Your task to perform on an android device: Go to wifi settings Image 0: 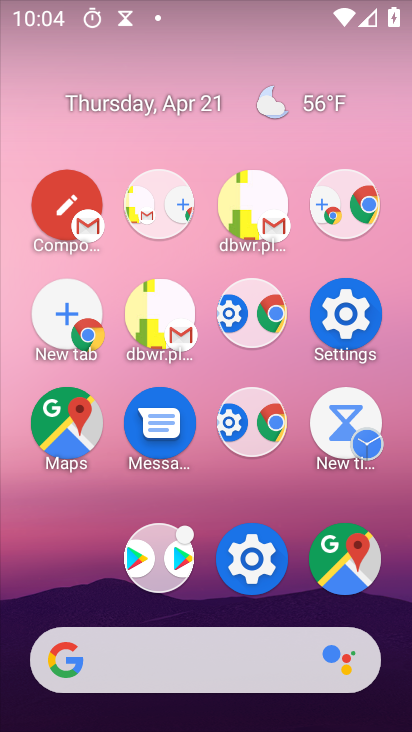
Step 0: drag from (259, 597) to (201, 19)
Your task to perform on an android device: Go to wifi settings Image 1: 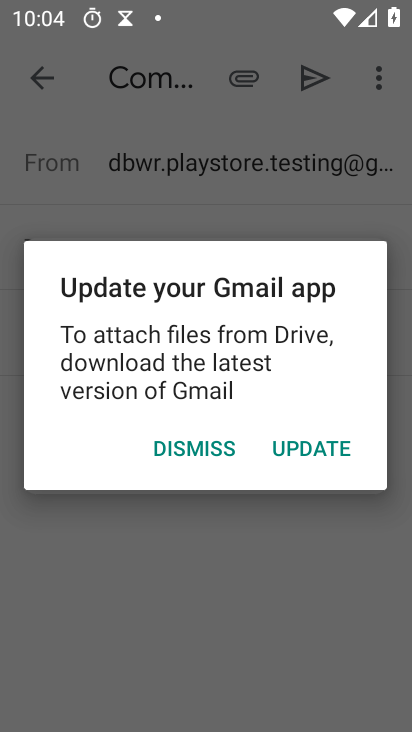
Step 1: click (179, 441)
Your task to perform on an android device: Go to wifi settings Image 2: 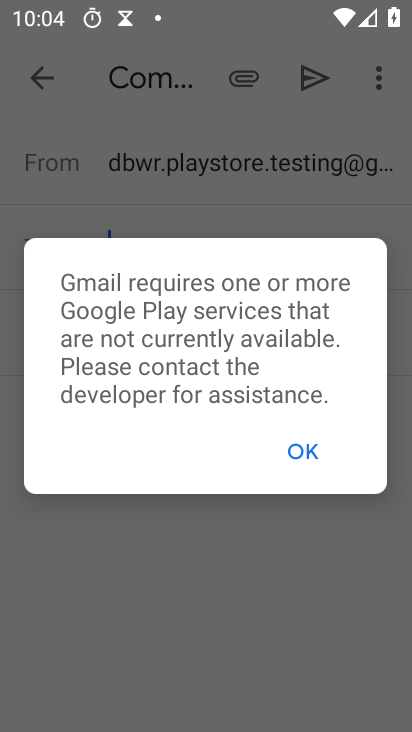
Step 2: click (308, 448)
Your task to perform on an android device: Go to wifi settings Image 3: 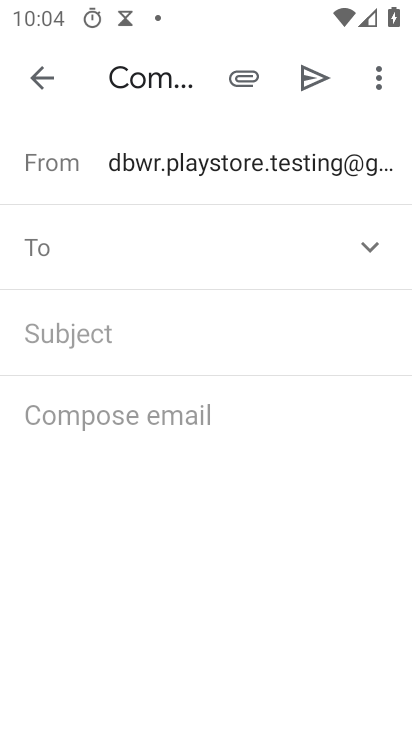
Step 3: click (28, 75)
Your task to perform on an android device: Go to wifi settings Image 4: 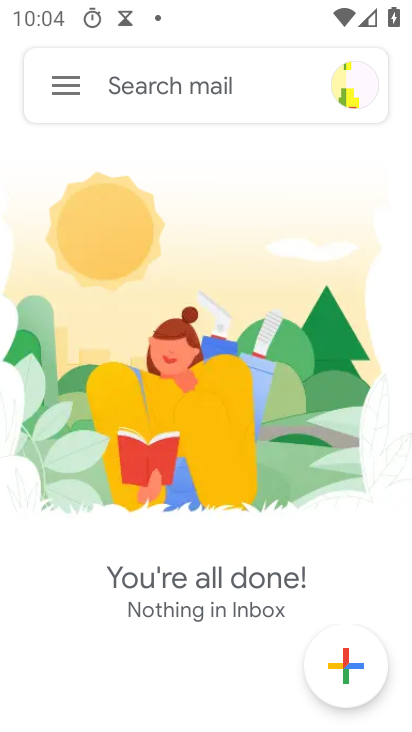
Step 4: press home button
Your task to perform on an android device: Go to wifi settings Image 5: 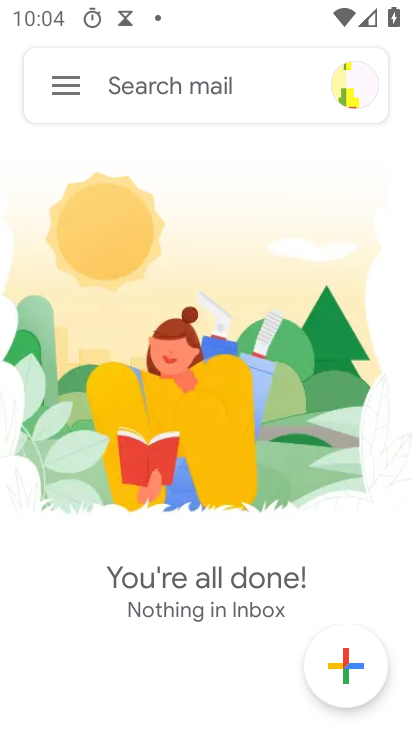
Step 5: press home button
Your task to perform on an android device: Go to wifi settings Image 6: 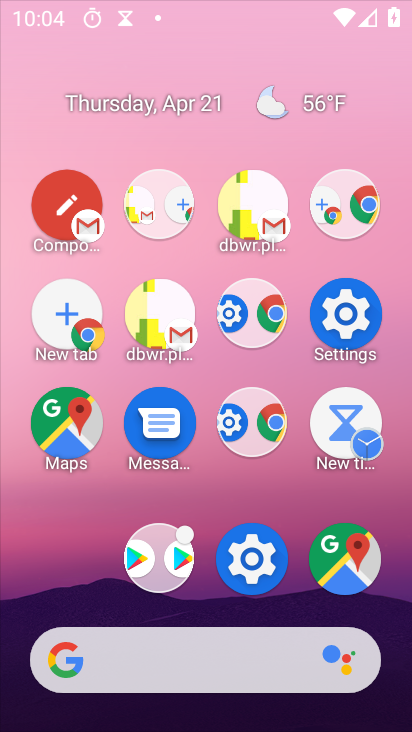
Step 6: press home button
Your task to perform on an android device: Go to wifi settings Image 7: 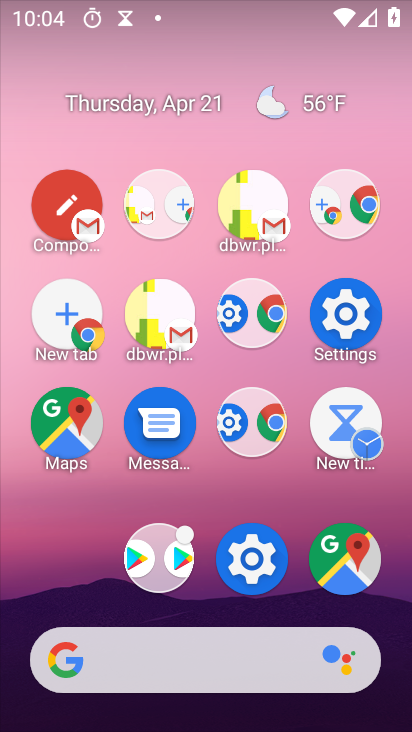
Step 7: drag from (281, 517) to (169, 48)
Your task to perform on an android device: Go to wifi settings Image 8: 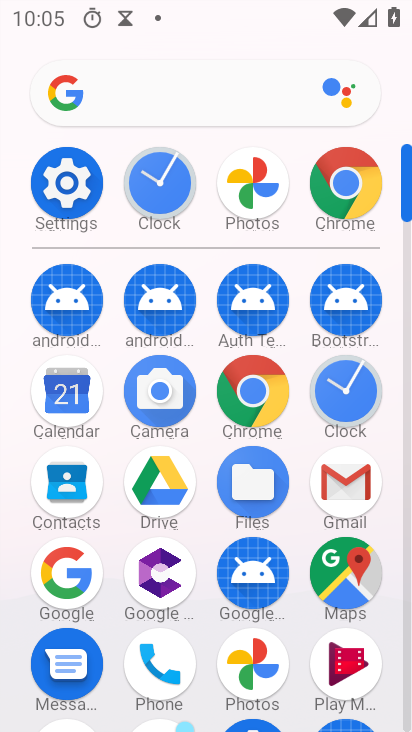
Step 8: click (60, 183)
Your task to perform on an android device: Go to wifi settings Image 9: 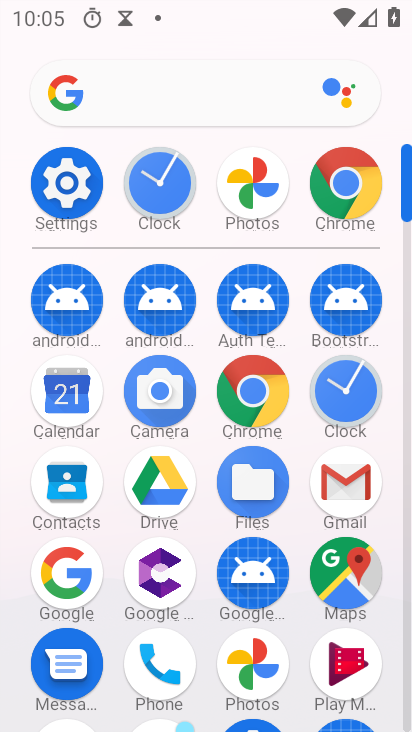
Step 9: click (58, 181)
Your task to perform on an android device: Go to wifi settings Image 10: 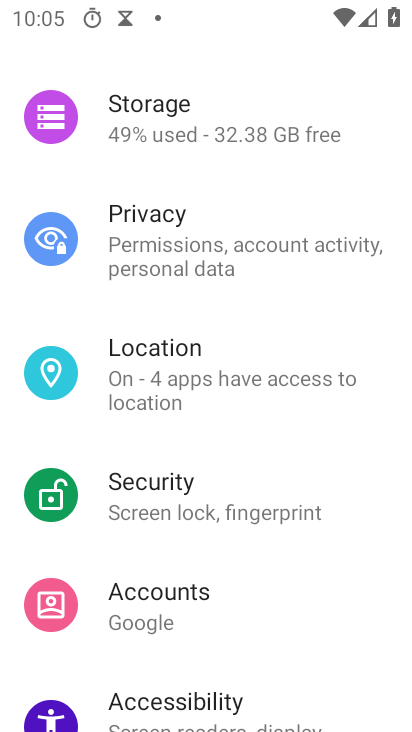
Step 10: drag from (146, 133) to (162, 397)
Your task to perform on an android device: Go to wifi settings Image 11: 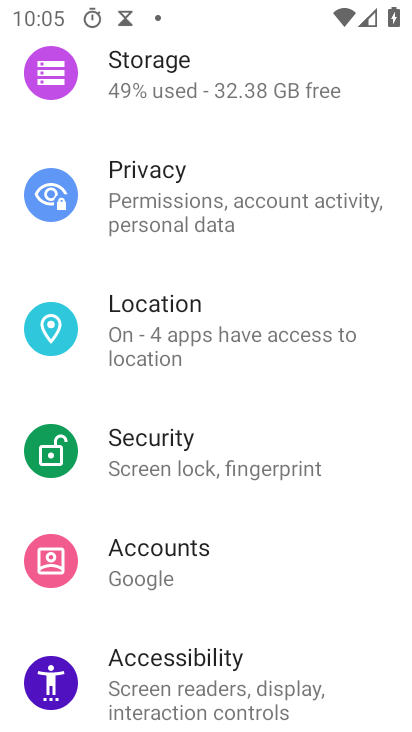
Step 11: drag from (158, 194) to (180, 511)
Your task to perform on an android device: Go to wifi settings Image 12: 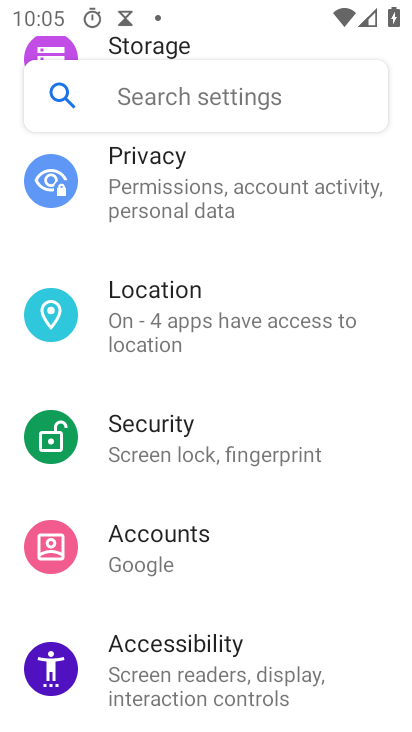
Step 12: drag from (180, 305) to (180, 471)
Your task to perform on an android device: Go to wifi settings Image 13: 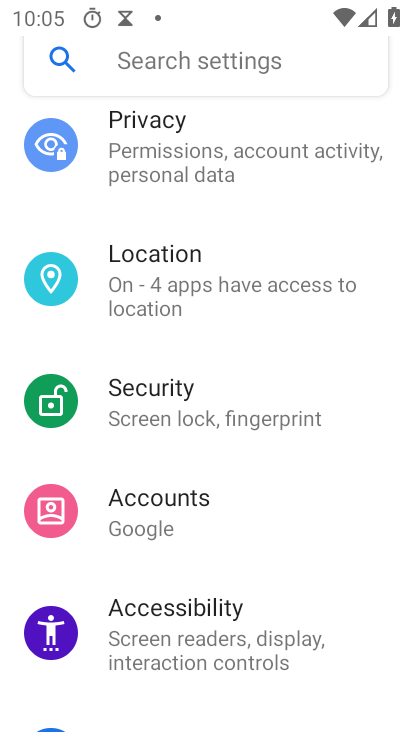
Step 13: drag from (184, 188) to (161, 557)
Your task to perform on an android device: Go to wifi settings Image 14: 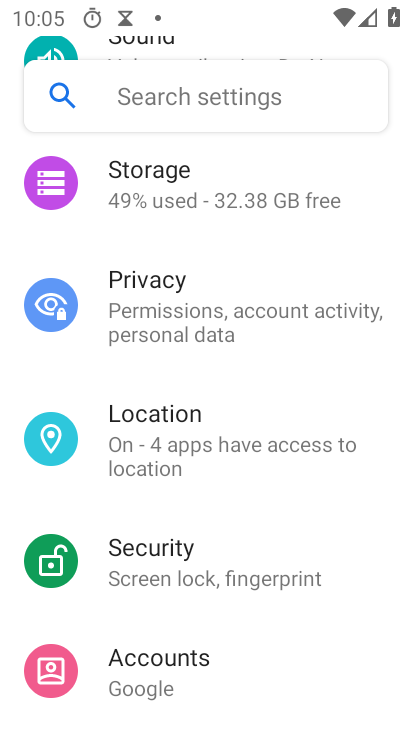
Step 14: drag from (180, 269) to (187, 643)
Your task to perform on an android device: Go to wifi settings Image 15: 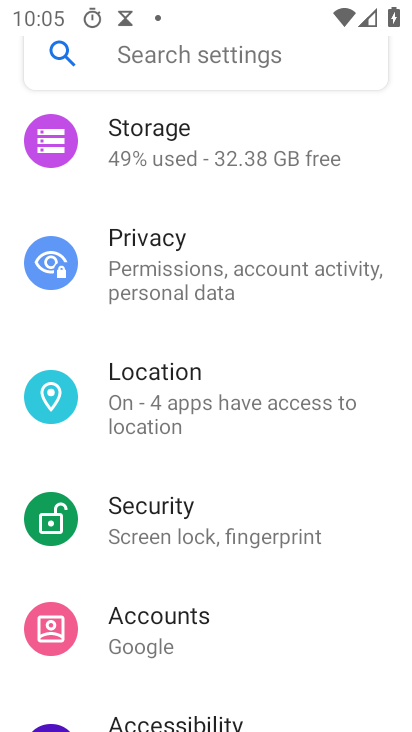
Step 15: drag from (101, 209) to (158, 428)
Your task to perform on an android device: Go to wifi settings Image 16: 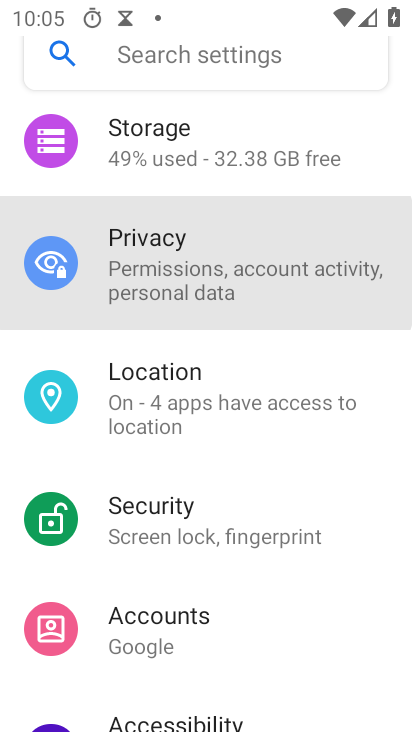
Step 16: drag from (230, 173) to (257, 464)
Your task to perform on an android device: Go to wifi settings Image 17: 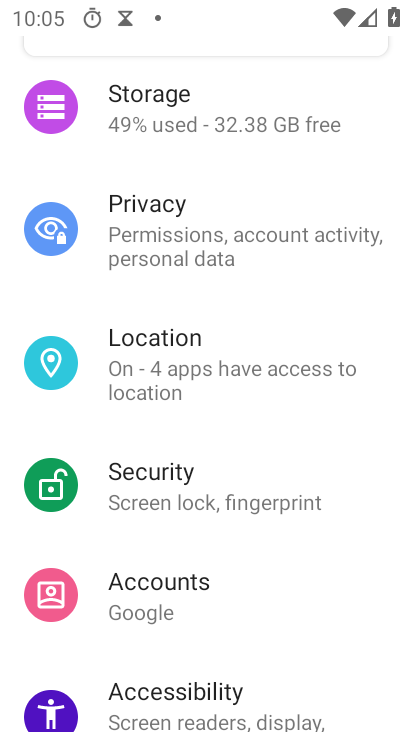
Step 17: drag from (148, 455) to (132, 508)
Your task to perform on an android device: Go to wifi settings Image 18: 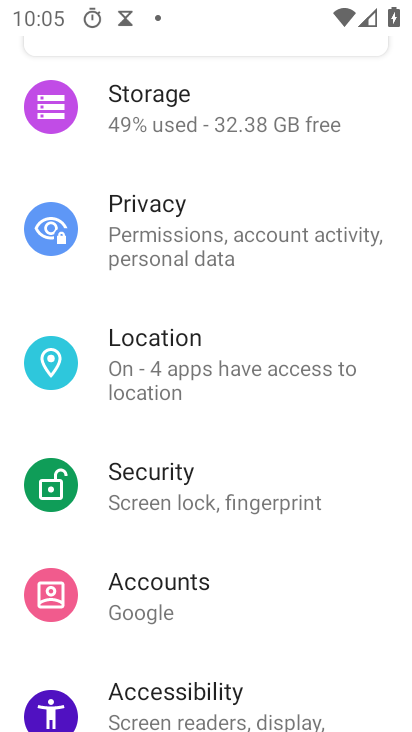
Step 18: drag from (146, 170) to (164, 507)
Your task to perform on an android device: Go to wifi settings Image 19: 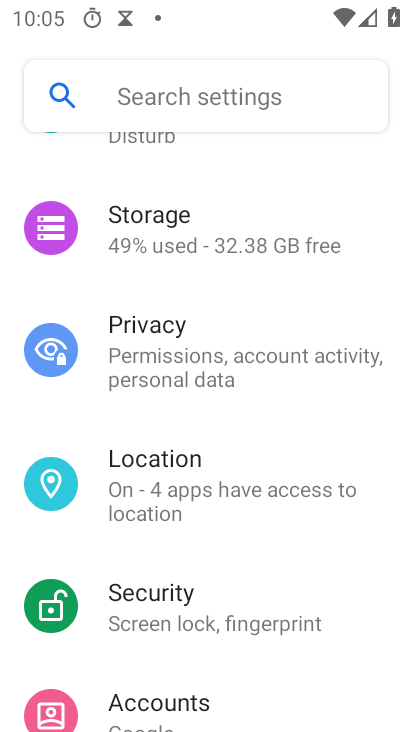
Step 19: drag from (179, 466) to (180, 528)
Your task to perform on an android device: Go to wifi settings Image 20: 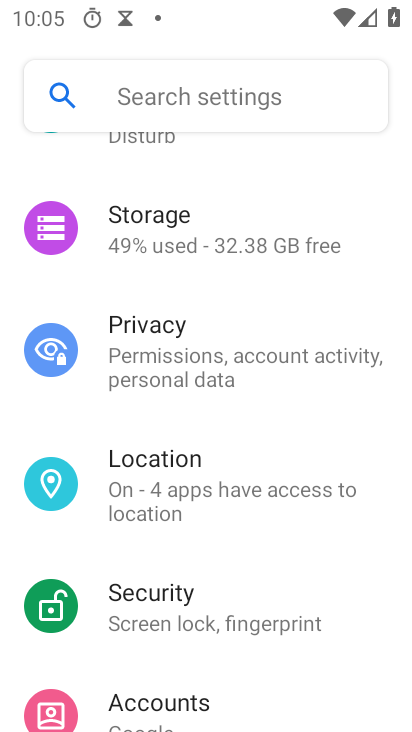
Step 20: drag from (160, 439) to (161, 514)
Your task to perform on an android device: Go to wifi settings Image 21: 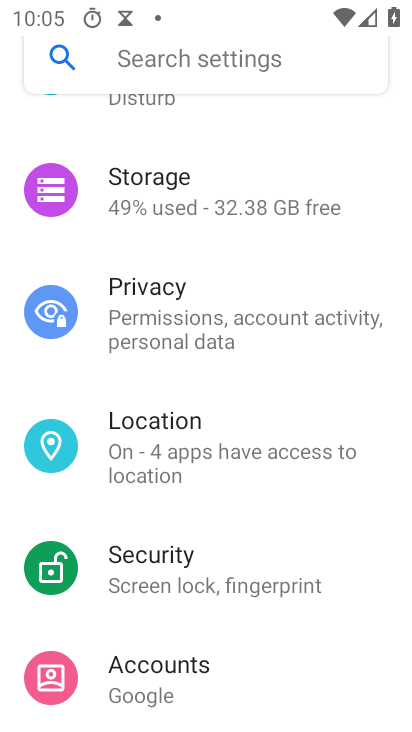
Step 21: drag from (152, 180) to (182, 448)
Your task to perform on an android device: Go to wifi settings Image 22: 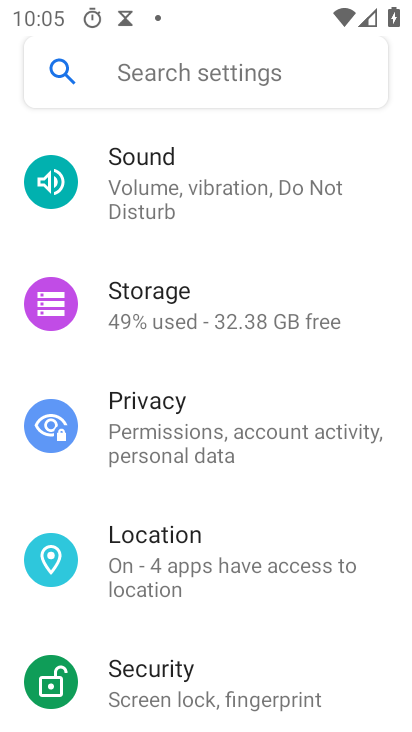
Step 22: drag from (184, 277) to (214, 546)
Your task to perform on an android device: Go to wifi settings Image 23: 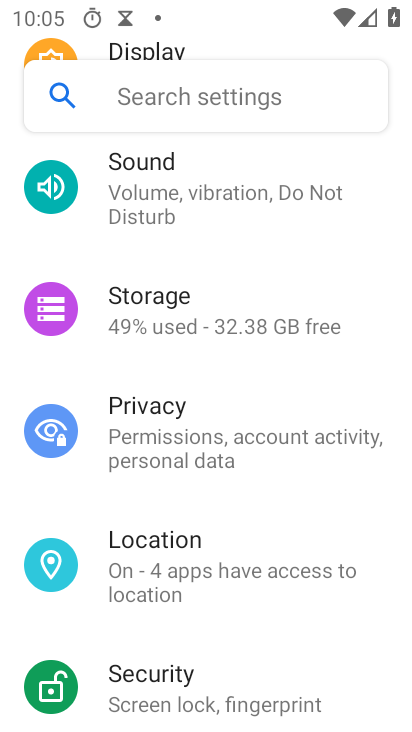
Step 23: drag from (189, 300) to (246, 547)
Your task to perform on an android device: Go to wifi settings Image 24: 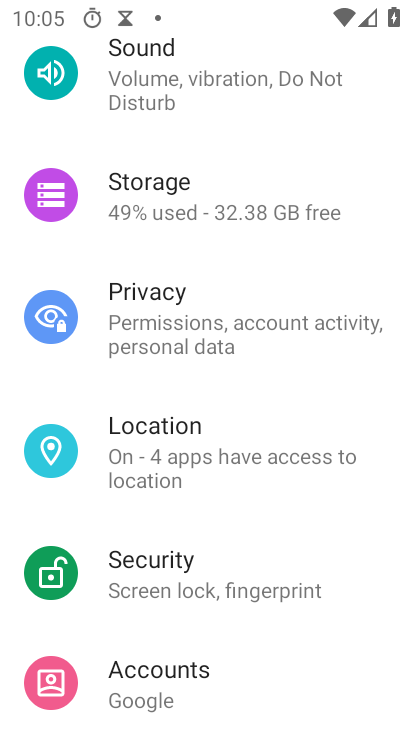
Step 24: drag from (214, 414) to (219, 525)
Your task to perform on an android device: Go to wifi settings Image 25: 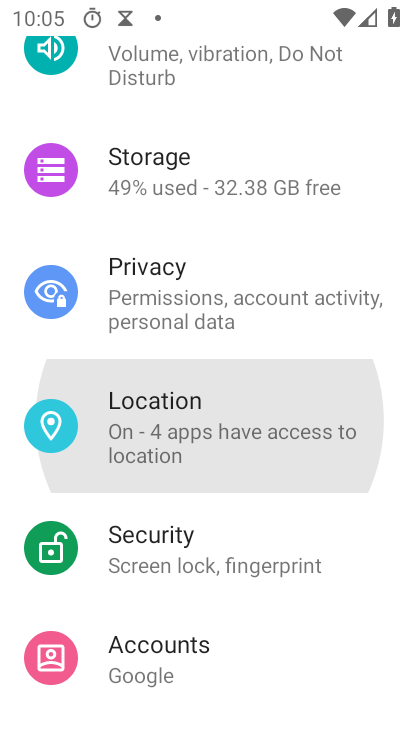
Step 25: drag from (167, 226) to (226, 595)
Your task to perform on an android device: Go to wifi settings Image 26: 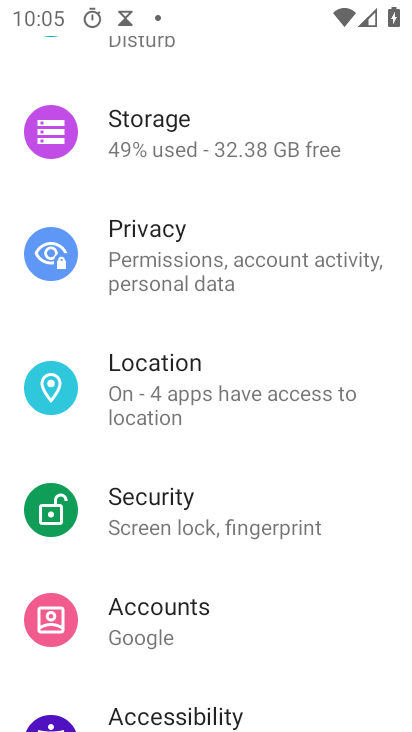
Step 26: drag from (154, 324) to (165, 550)
Your task to perform on an android device: Go to wifi settings Image 27: 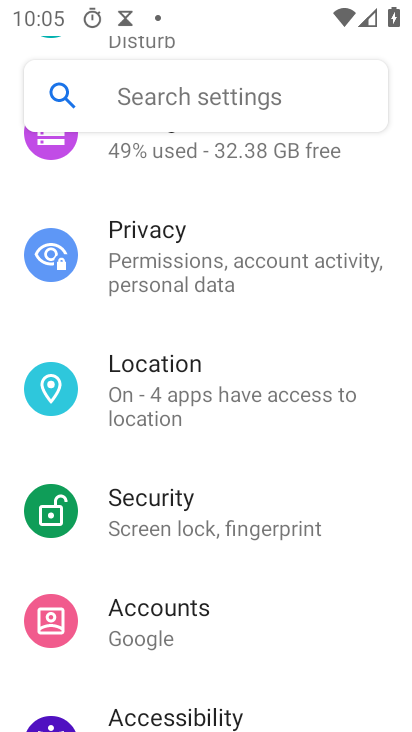
Step 27: drag from (235, 351) to (234, 467)
Your task to perform on an android device: Go to wifi settings Image 28: 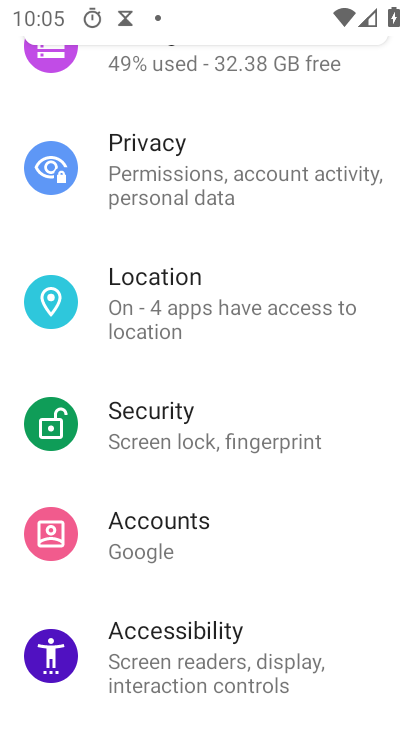
Step 28: drag from (165, 221) to (169, 474)
Your task to perform on an android device: Go to wifi settings Image 29: 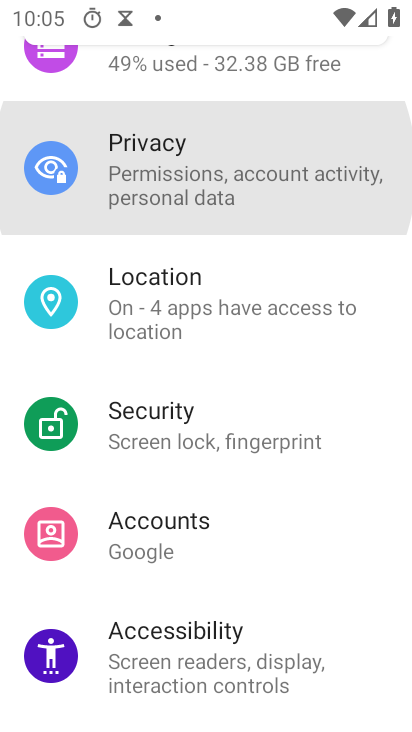
Step 29: click (193, 420)
Your task to perform on an android device: Go to wifi settings Image 30: 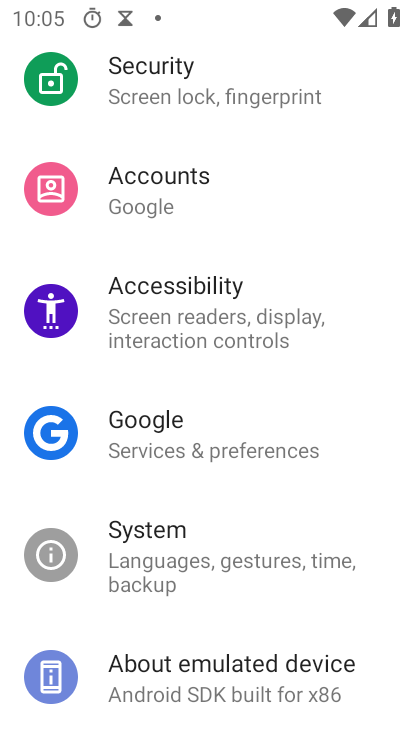
Step 30: drag from (105, 115) to (210, 501)
Your task to perform on an android device: Go to wifi settings Image 31: 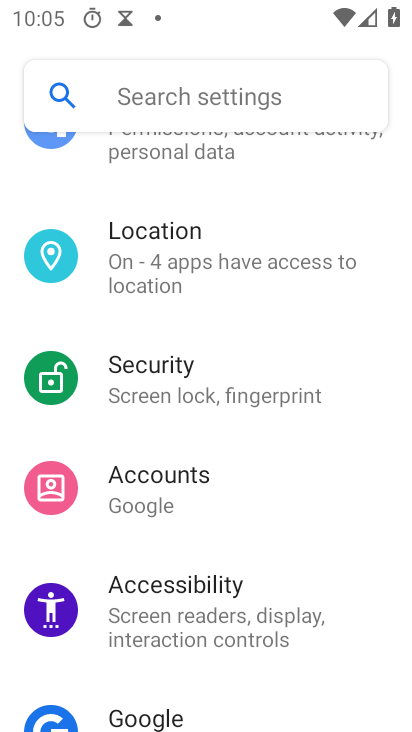
Step 31: drag from (170, 322) to (188, 595)
Your task to perform on an android device: Go to wifi settings Image 32: 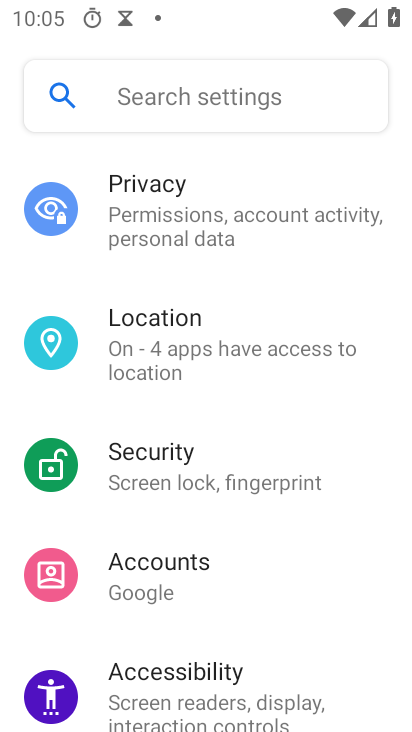
Step 32: drag from (194, 517) to (247, 575)
Your task to perform on an android device: Go to wifi settings Image 33: 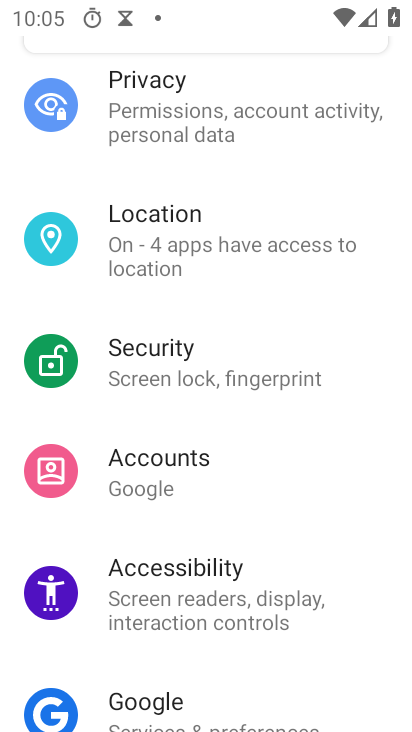
Step 33: drag from (211, 553) to (188, 471)
Your task to perform on an android device: Go to wifi settings Image 34: 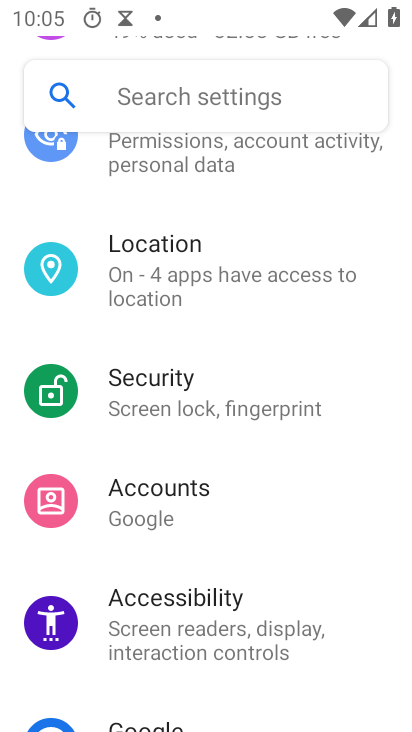
Step 34: drag from (178, 161) to (203, 583)
Your task to perform on an android device: Go to wifi settings Image 35: 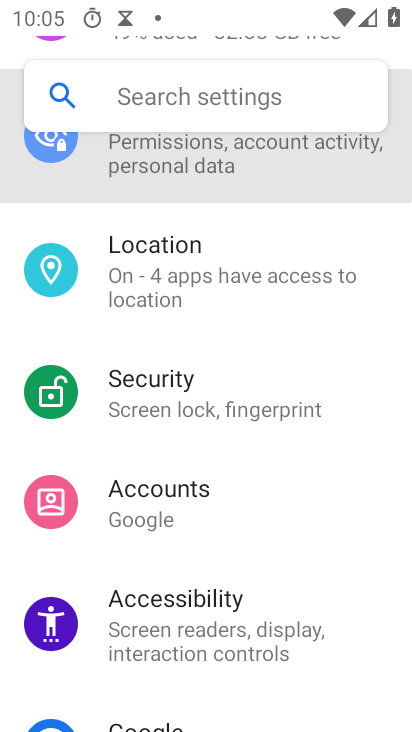
Step 35: drag from (175, 179) to (186, 526)
Your task to perform on an android device: Go to wifi settings Image 36: 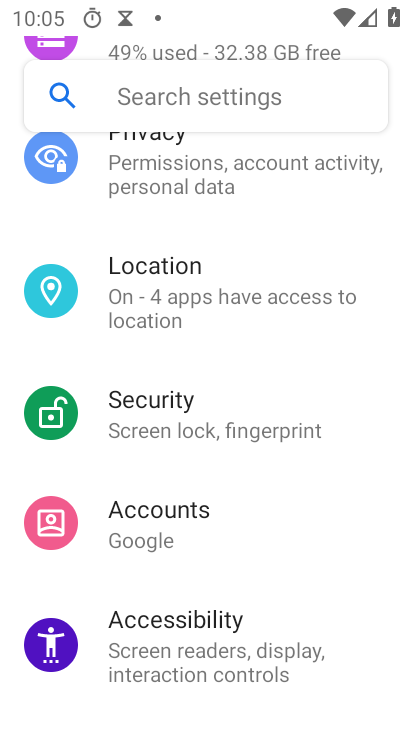
Step 36: drag from (134, 315) to (169, 580)
Your task to perform on an android device: Go to wifi settings Image 37: 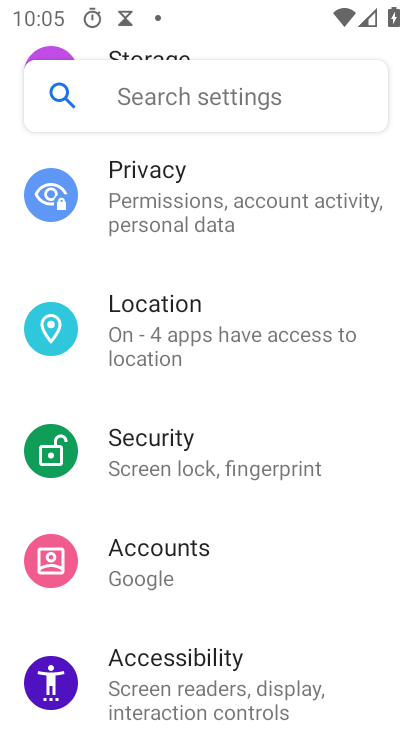
Step 37: drag from (172, 208) to (180, 598)
Your task to perform on an android device: Go to wifi settings Image 38: 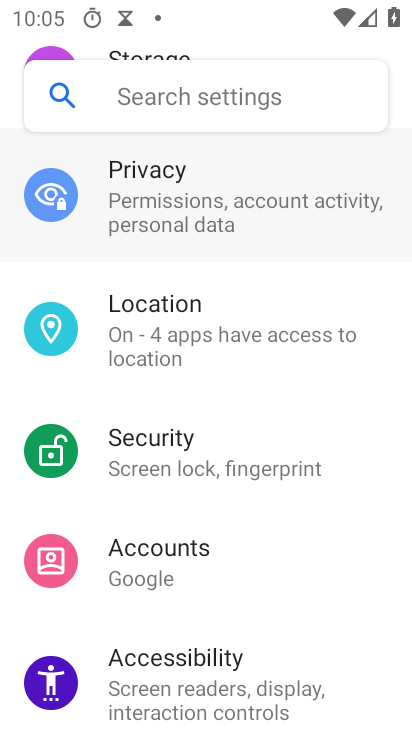
Step 38: drag from (203, 494) to (203, 583)
Your task to perform on an android device: Go to wifi settings Image 39: 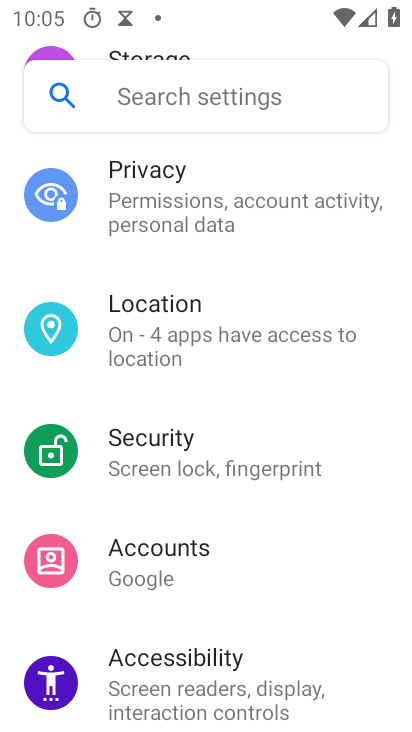
Step 39: drag from (213, 527) to (212, 601)
Your task to perform on an android device: Go to wifi settings Image 40: 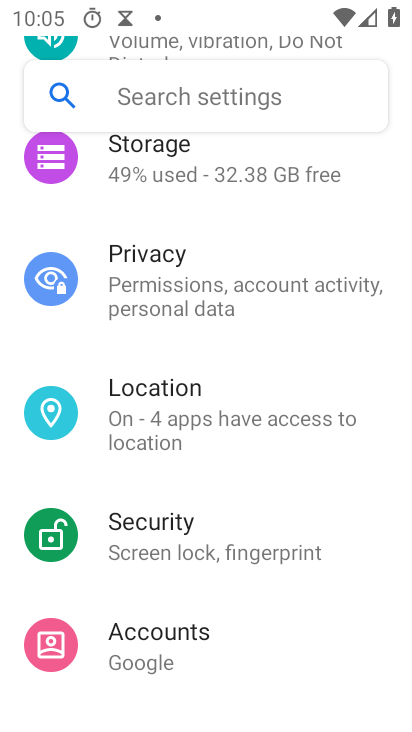
Step 40: drag from (241, 479) to (145, 536)
Your task to perform on an android device: Go to wifi settings Image 41: 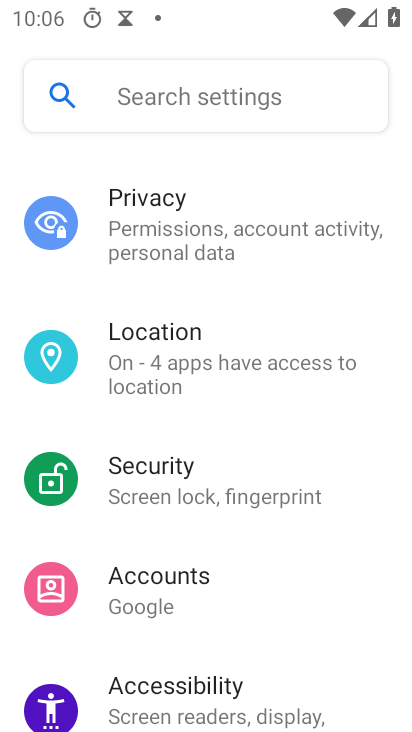
Step 41: drag from (175, 405) to (233, 578)
Your task to perform on an android device: Go to wifi settings Image 42: 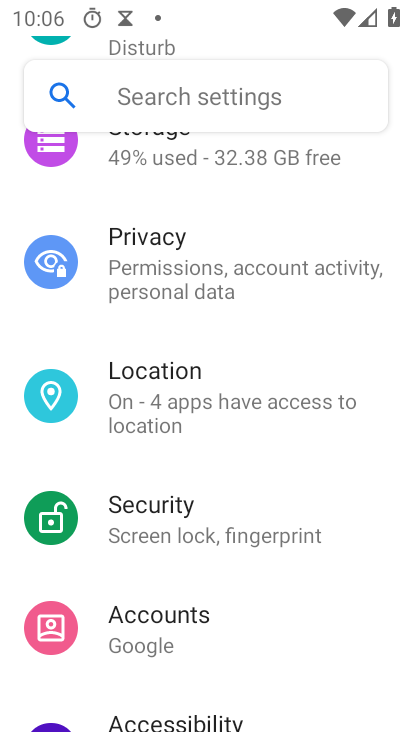
Step 42: drag from (216, 175) to (214, 539)
Your task to perform on an android device: Go to wifi settings Image 43: 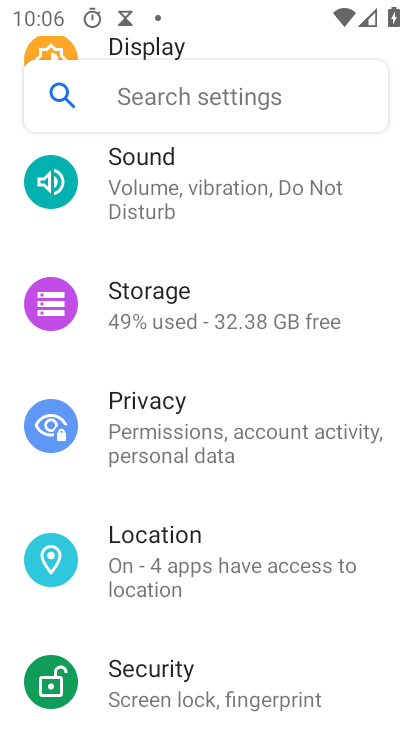
Step 43: drag from (159, 214) to (201, 539)
Your task to perform on an android device: Go to wifi settings Image 44: 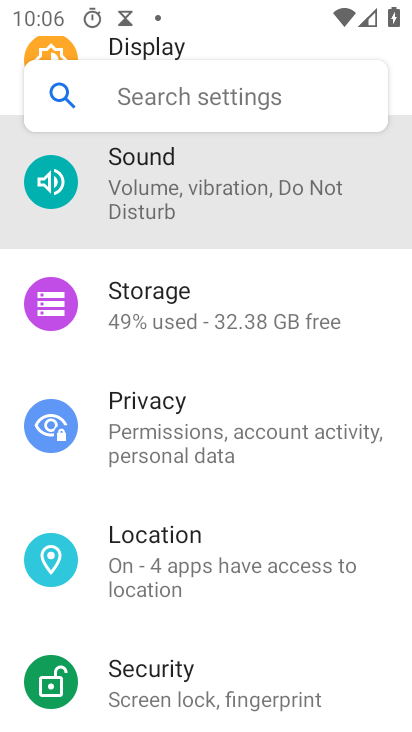
Step 44: drag from (194, 390) to (190, 581)
Your task to perform on an android device: Go to wifi settings Image 45: 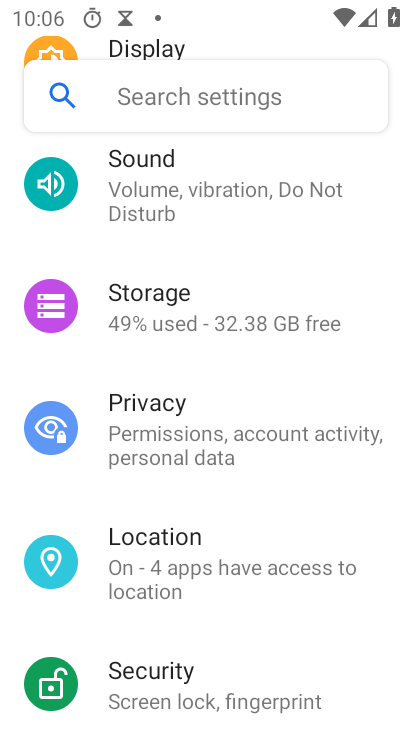
Step 45: drag from (177, 267) to (174, 679)
Your task to perform on an android device: Go to wifi settings Image 46: 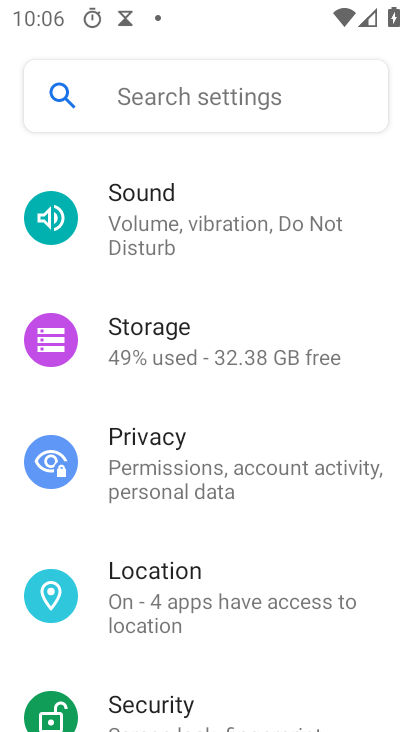
Step 46: drag from (195, 200) to (225, 506)
Your task to perform on an android device: Go to wifi settings Image 47: 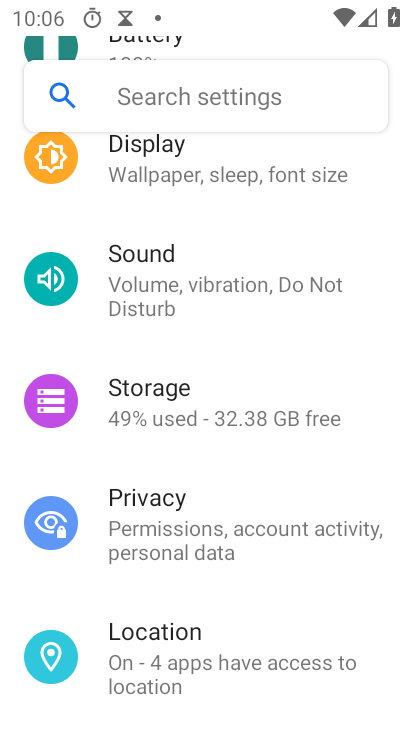
Step 47: drag from (251, 293) to (296, 548)
Your task to perform on an android device: Go to wifi settings Image 48: 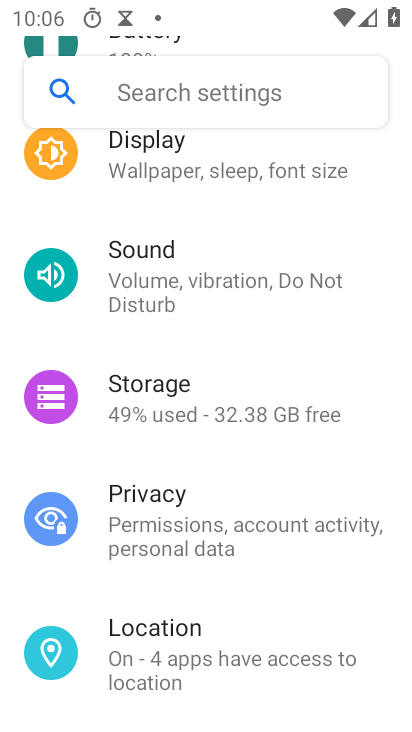
Step 48: click (331, 585)
Your task to perform on an android device: Go to wifi settings Image 49: 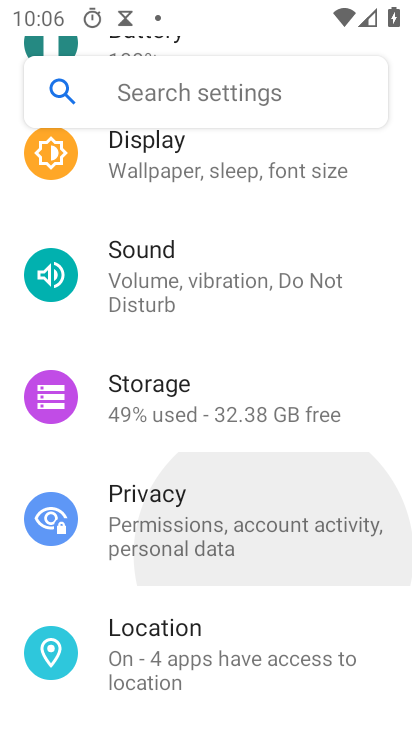
Step 49: drag from (268, 507) to (287, 565)
Your task to perform on an android device: Go to wifi settings Image 50: 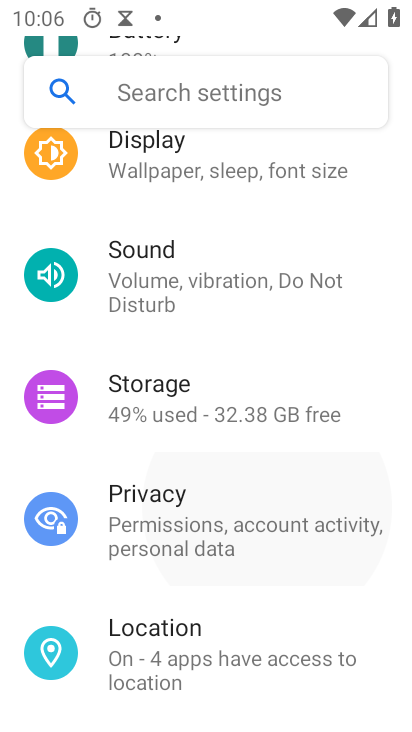
Step 50: drag from (213, 236) to (224, 464)
Your task to perform on an android device: Go to wifi settings Image 51: 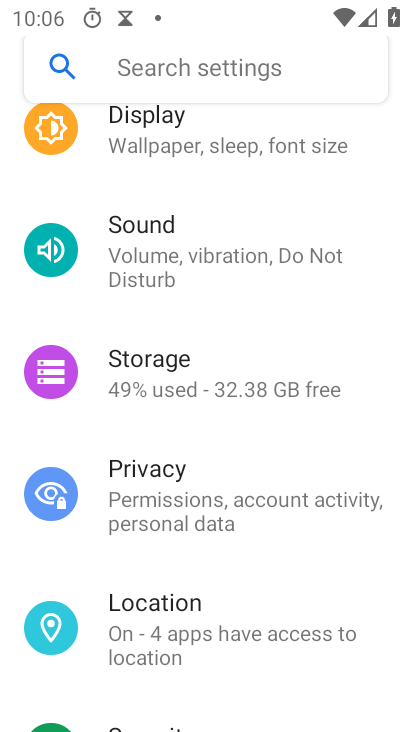
Step 51: drag from (186, 207) to (248, 411)
Your task to perform on an android device: Go to wifi settings Image 52: 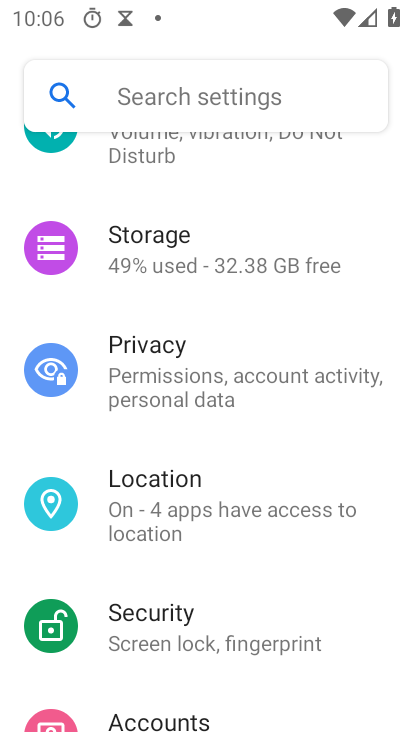
Step 52: drag from (245, 237) to (240, 506)
Your task to perform on an android device: Go to wifi settings Image 53: 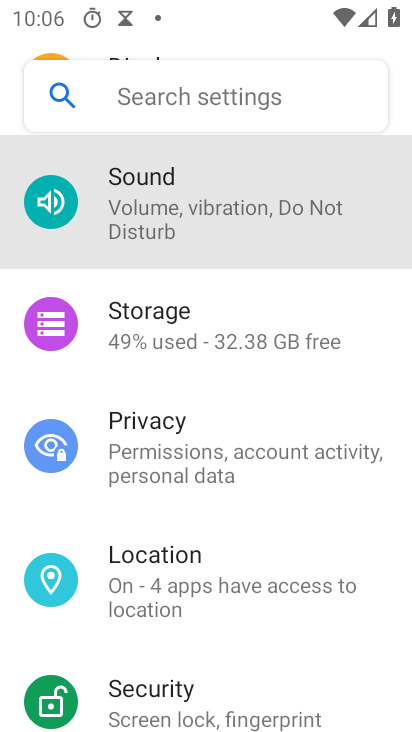
Step 53: drag from (250, 352) to (256, 545)
Your task to perform on an android device: Go to wifi settings Image 54: 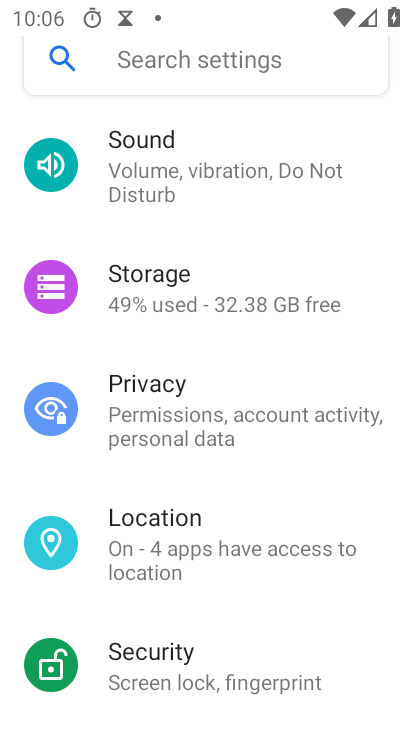
Step 54: drag from (185, 168) to (176, 369)
Your task to perform on an android device: Go to wifi settings Image 55: 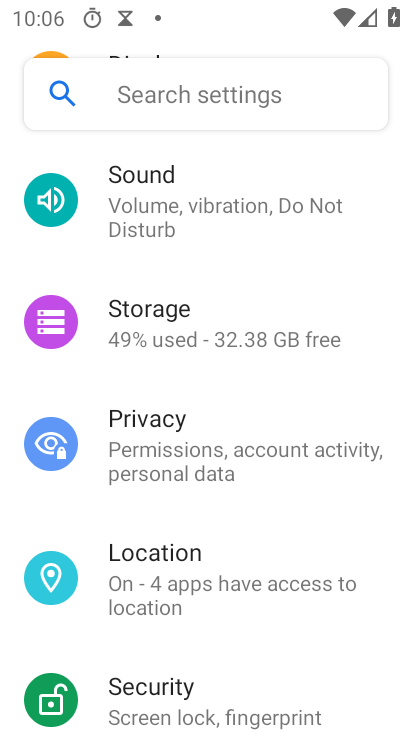
Step 55: drag from (153, 134) to (161, 560)
Your task to perform on an android device: Go to wifi settings Image 56: 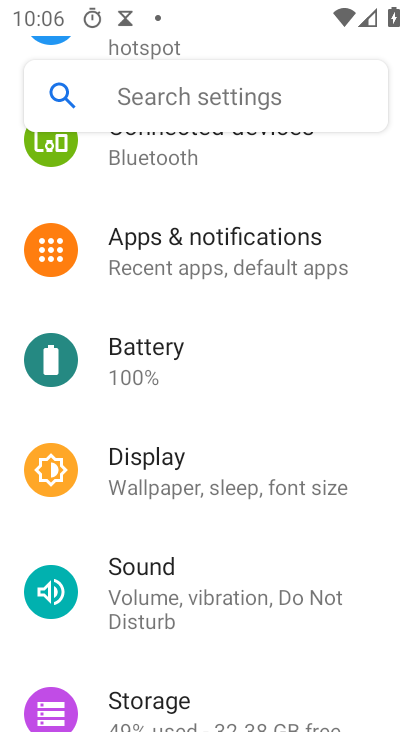
Step 56: drag from (156, 171) to (196, 683)
Your task to perform on an android device: Go to wifi settings Image 57: 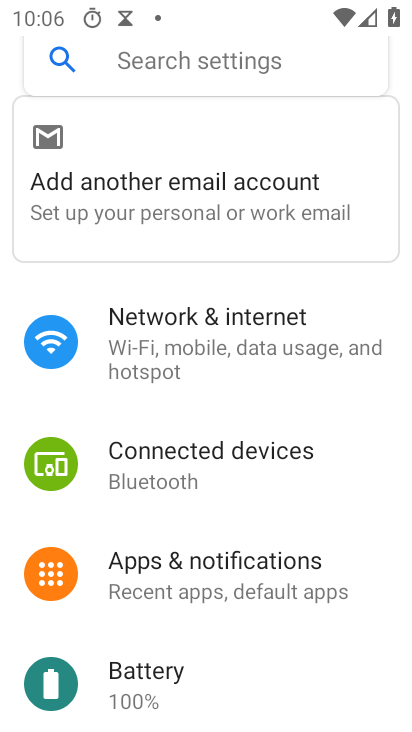
Step 57: drag from (159, 201) to (158, 683)
Your task to perform on an android device: Go to wifi settings Image 58: 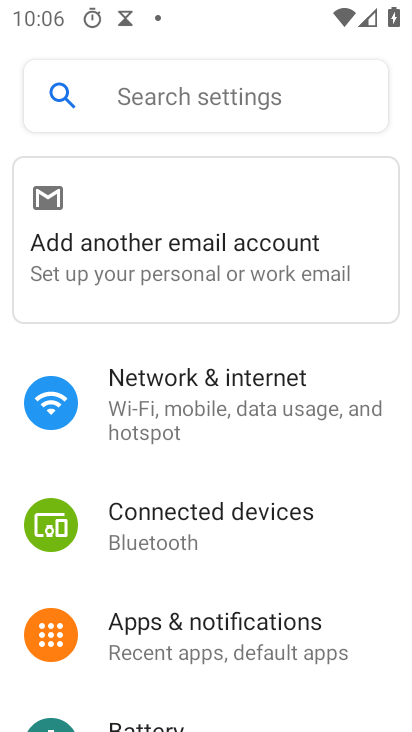
Step 58: click (253, 386)
Your task to perform on an android device: Go to wifi settings Image 59: 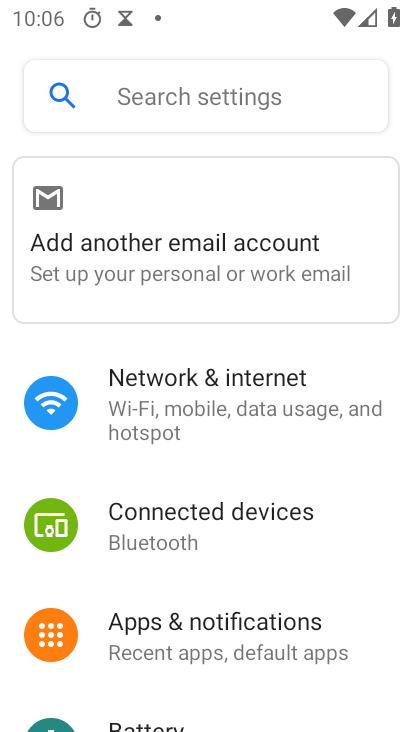
Step 59: click (254, 406)
Your task to perform on an android device: Go to wifi settings Image 60: 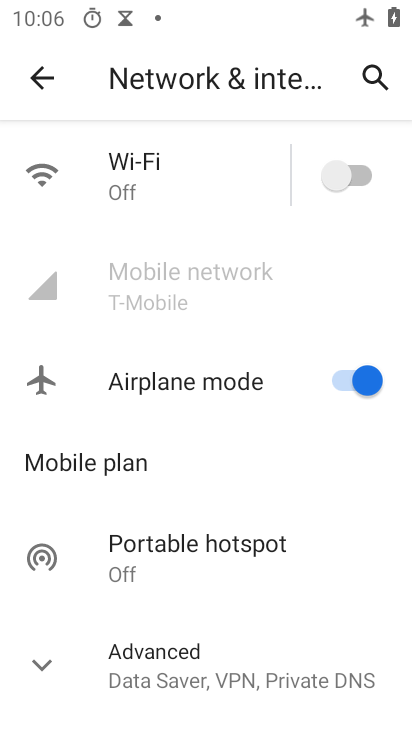
Step 60: task complete